Your task to perform on an android device: delete the emails in spam in the gmail app Image 0: 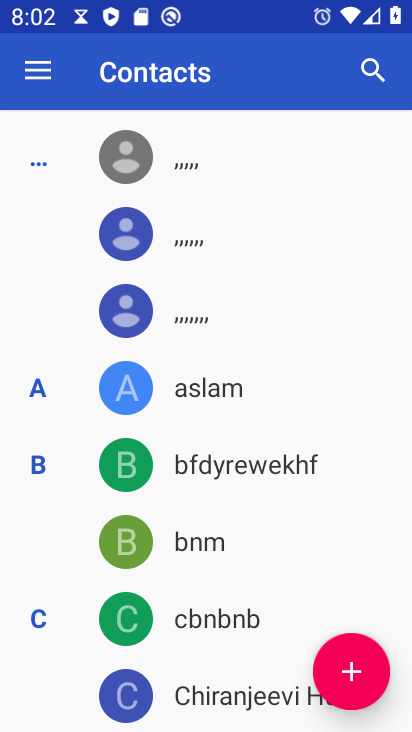
Step 0: press home button
Your task to perform on an android device: delete the emails in spam in the gmail app Image 1: 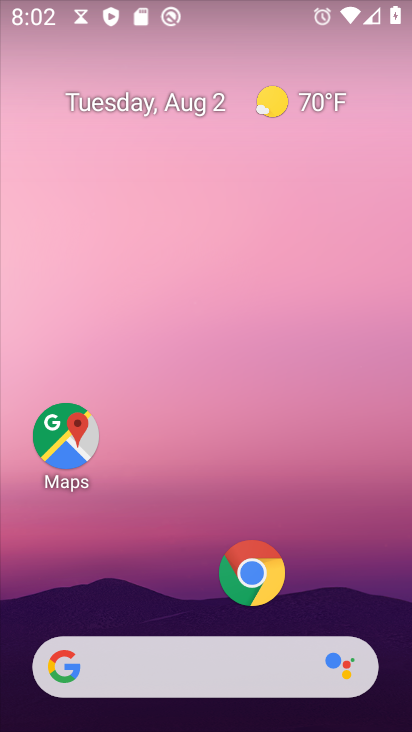
Step 1: drag from (198, 602) to (259, 0)
Your task to perform on an android device: delete the emails in spam in the gmail app Image 2: 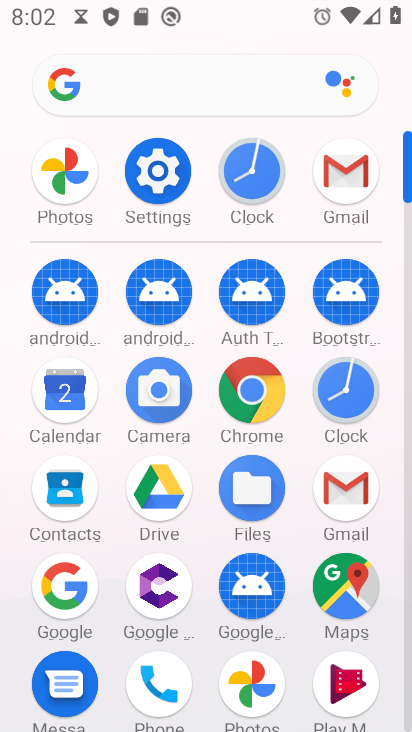
Step 2: click (339, 167)
Your task to perform on an android device: delete the emails in spam in the gmail app Image 3: 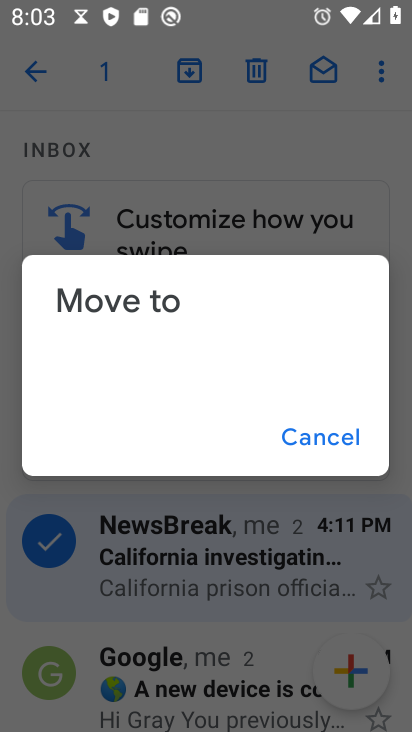
Step 3: click (321, 431)
Your task to perform on an android device: delete the emails in spam in the gmail app Image 4: 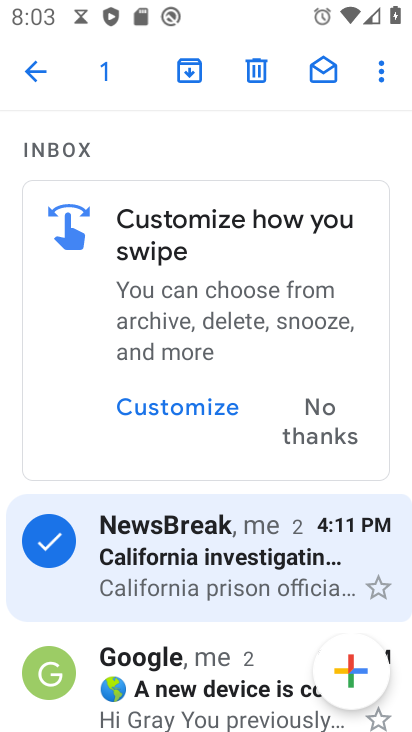
Step 4: click (34, 84)
Your task to perform on an android device: delete the emails in spam in the gmail app Image 5: 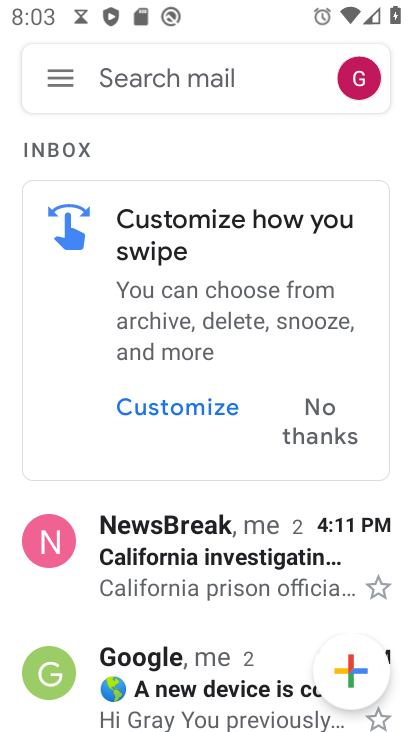
Step 5: click (52, 74)
Your task to perform on an android device: delete the emails in spam in the gmail app Image 6: 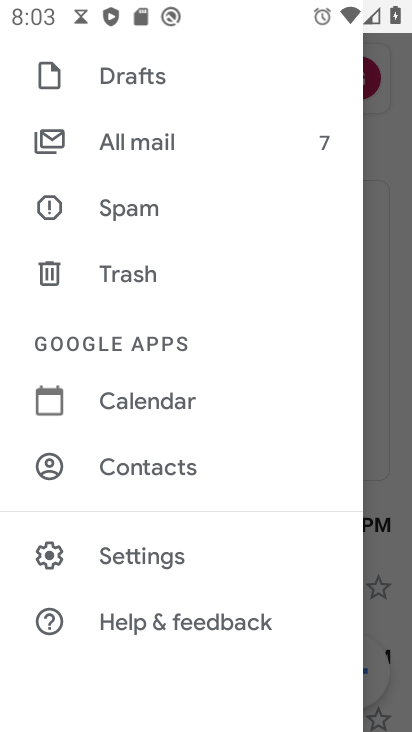
Step 6: click (94, 202)
Your task to perform on an android device: delete the emails in spam in the gmail app Image 7: 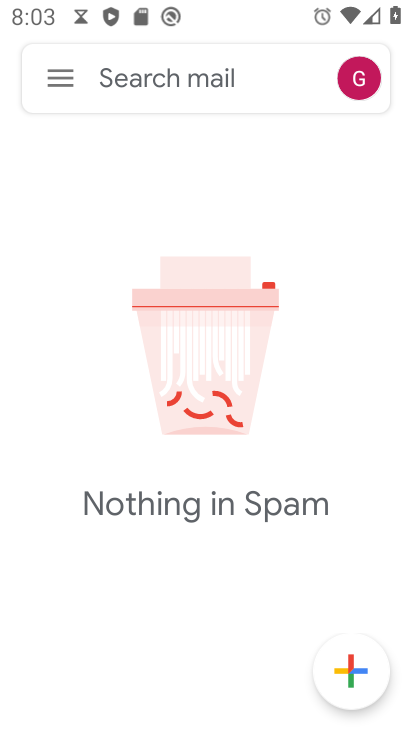
Step 7: task complete